Your task to perform on an android device: Open calendar and show me the second week of next month Image 0: 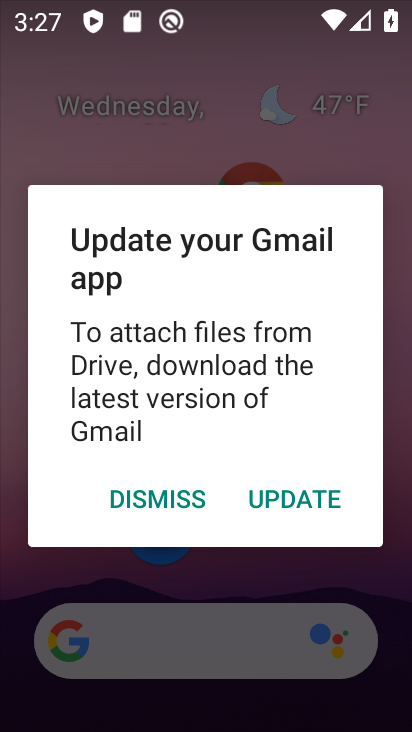
Step 0: press home button
Your task to perform on an android device: Open calendar and show me the second week of next month Image 1: 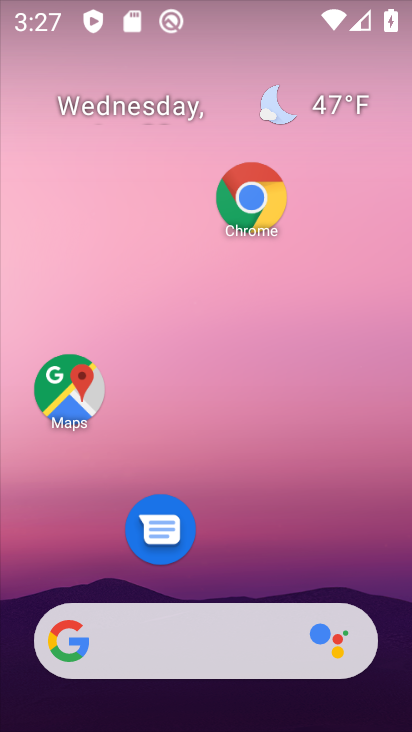
Step 1: drag from (241, 500) to (180, 24)
Your task to perform on an android device: Open calendar and show me the second week of next month Image 2: 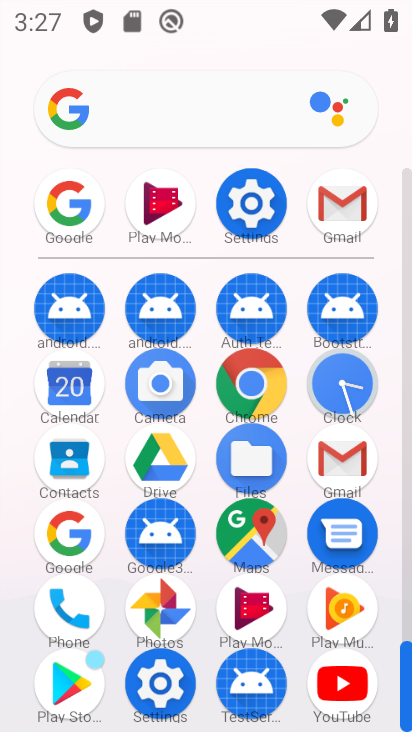
Step 2: click (55, 399)
Your task to perform on an android device: Open calendar and show me the second week of next month Image 3: 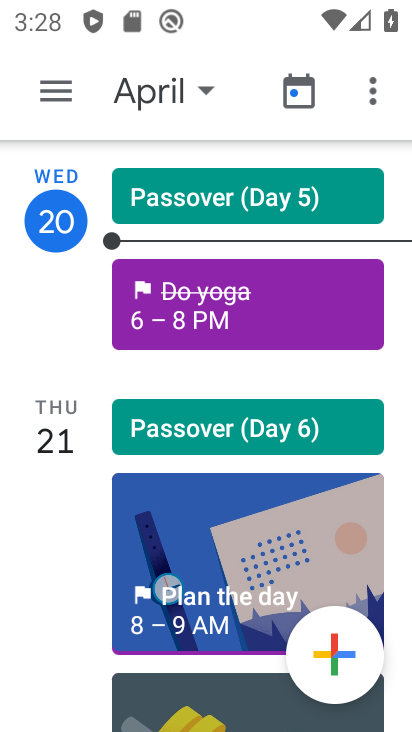
Step 3: click (55, 114)
Your task to perform on an android device: Open calendar and show me the second week of next month Image 4: 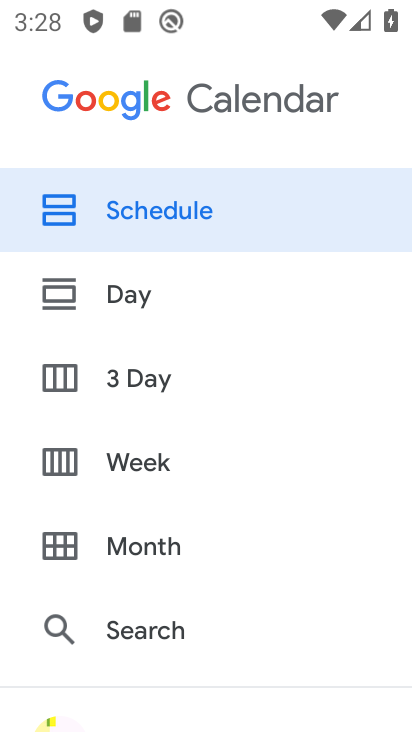
Step 4: click (172, 458)
Your task to perform on an android device: Open calendar and show me the second week of next month Image 5: 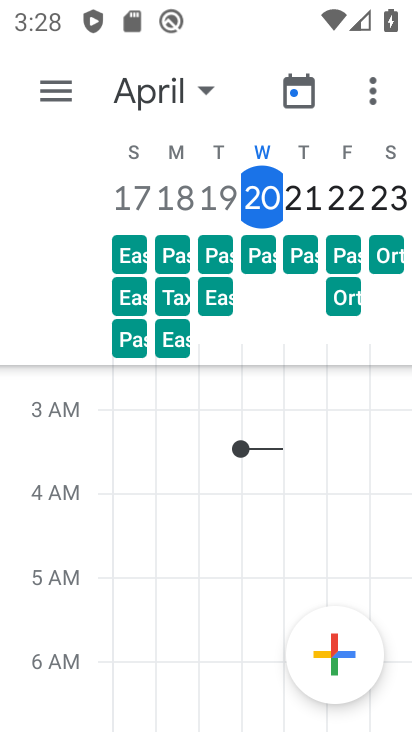
Step 5: click (197, 92)
Your task to perform on an android device: Open calendar and show me the second week of next month Image 6: 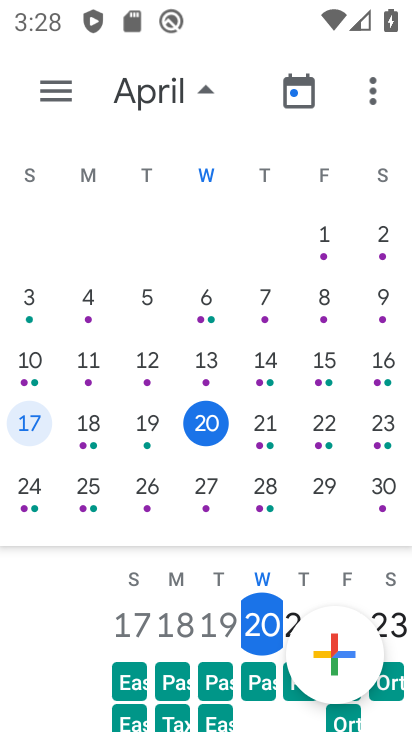
Step 6: drag from (354, 391) to (6, 402)
Your task to perform on an android device: Open calendar and show me the second week of next month Image 7: 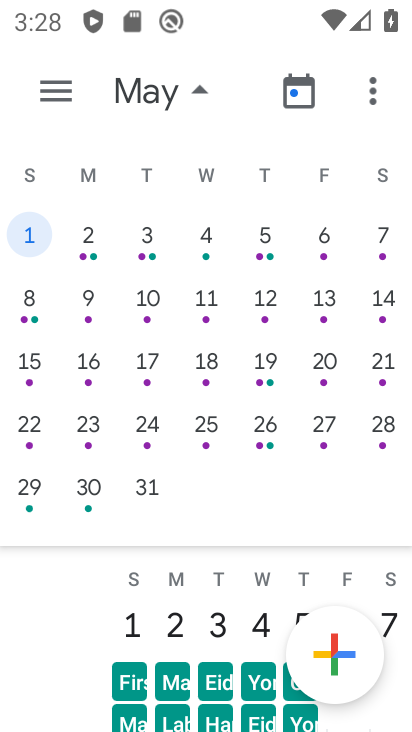
Step 7: click (39, 298)
Your task to perform on an android device: Open calendar and show me the second week of next month Image 8: 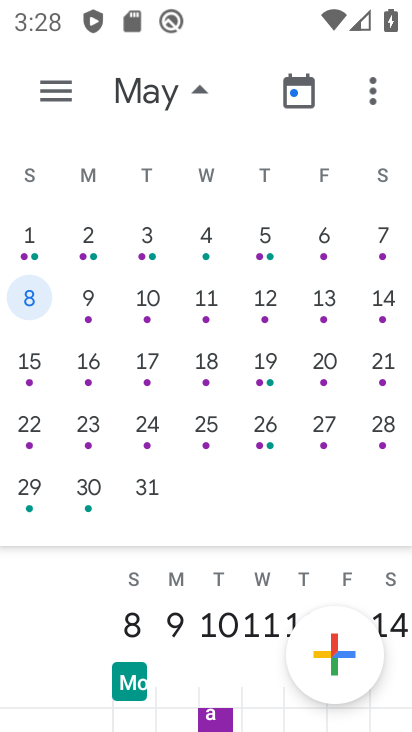
Step 8: task complete